Your task to perform on an android device: Open the stopwatch Image 0: 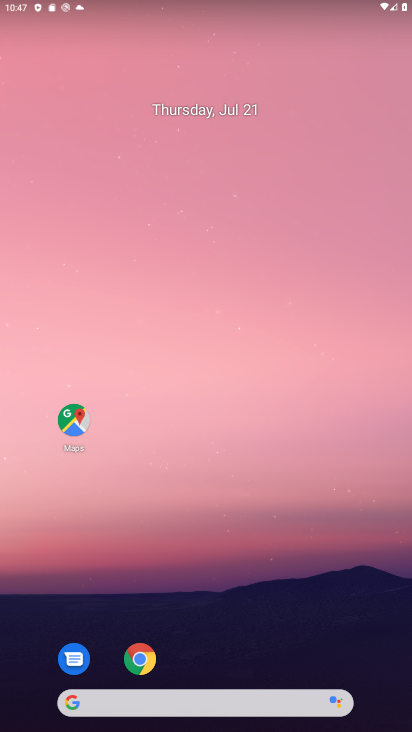
Step 0: drag from (262, 655) to (239, 174)
Your task to perform on an android device: Open the stopwatch Image 1: 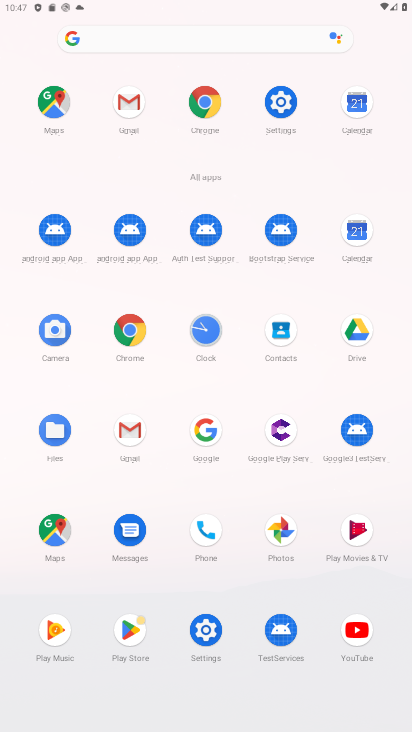
Step 1: click (211, 336)
Your task to perform on an android device: Open the stopwatch Image 2: 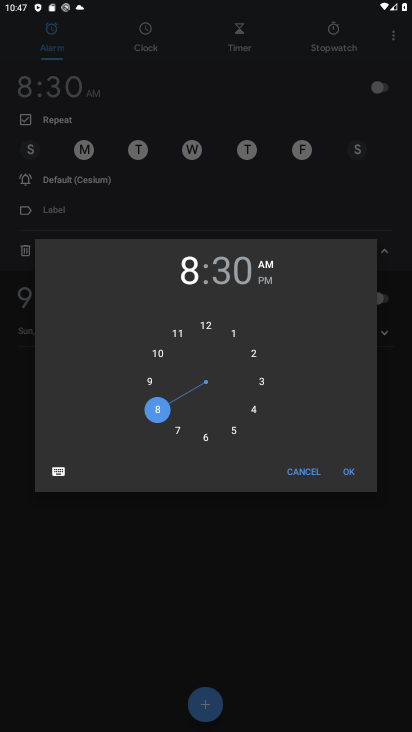
Step 2: click (346, 470)
Your task to perform on an android device: Open the stopwatch Image 3: 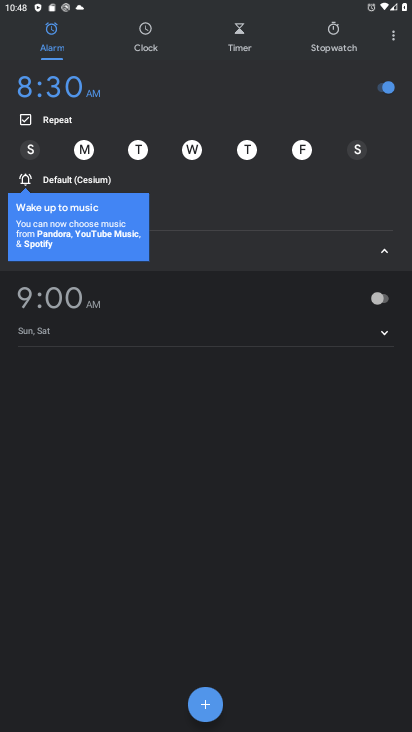
Step 3: click (327, 33)
Your task to perform on an android device: Open the stopwatch Image 4: 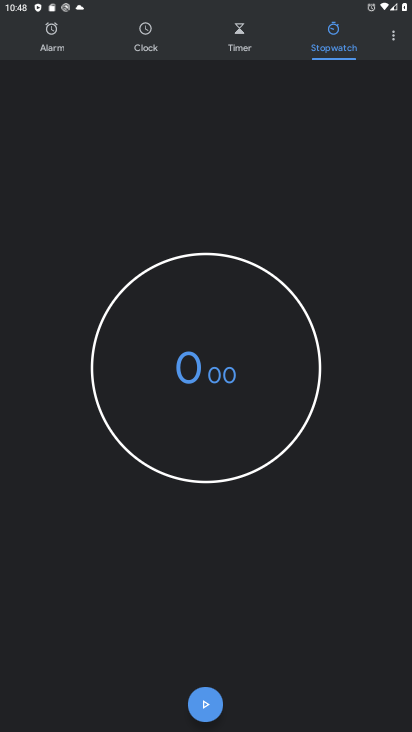
Step 4: task complete